Your task to perform on an android device: set the stopwatch Image 0: 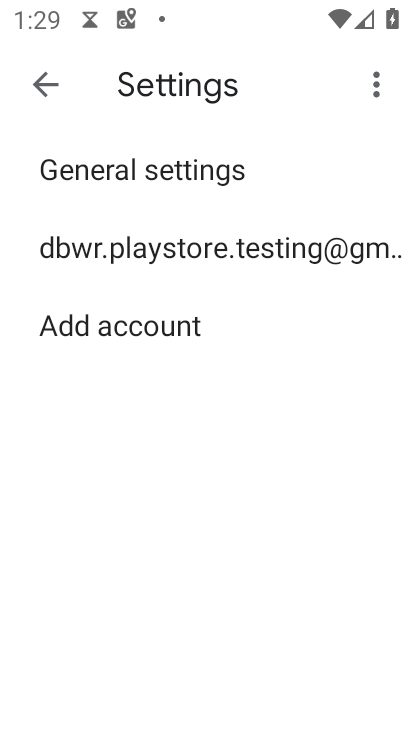
Step 0: press home button
Your task to perform on an android device: set the stopwatch Image 1: 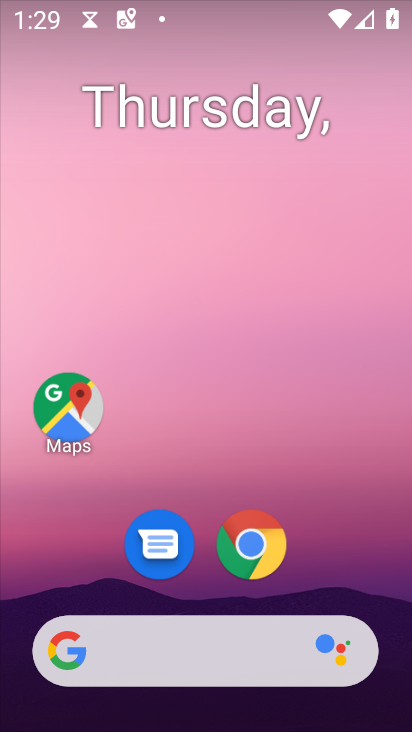
Step 1: drag from (191, 707) to (195, 158)
Your task to perform on an android device: set the stopwatch Image 2: 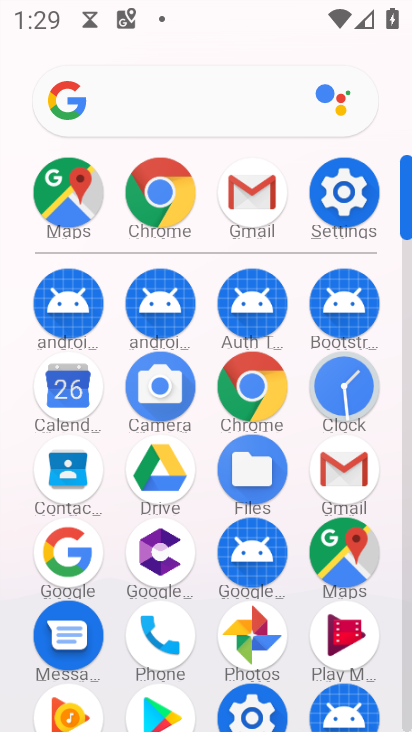
Step 2: click (354, 382)
Your task to perform on an android device: set the stopwatch Image 3: 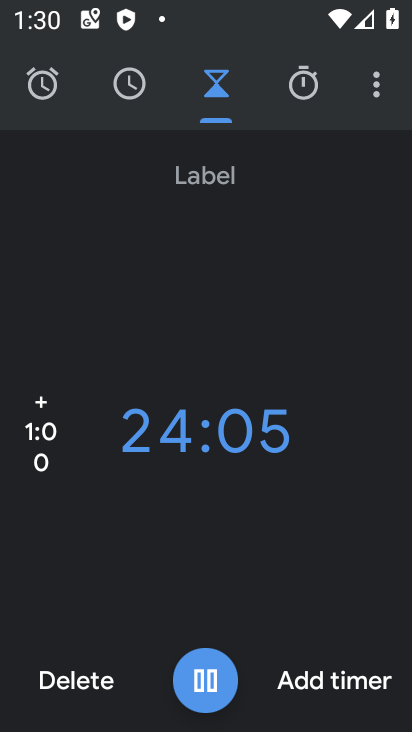
Step 3: click (304, 82)
Your task to perform on an android device: set the stopwatch Image 4: 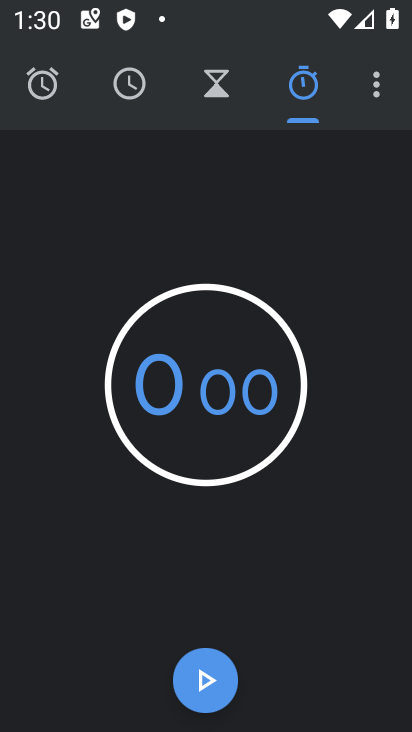
Step 4: click (220, 382)
Your task to perform on an android device: set the stopwatch Image 5: 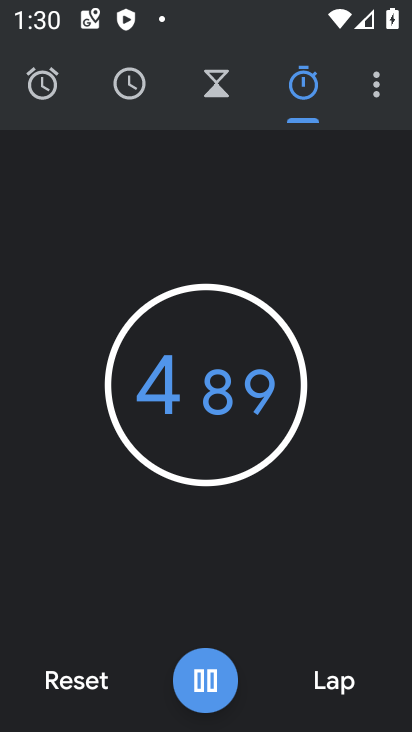
Step 5: type "77"
Your task to perform on an android device: set the stopwatch Image 6: 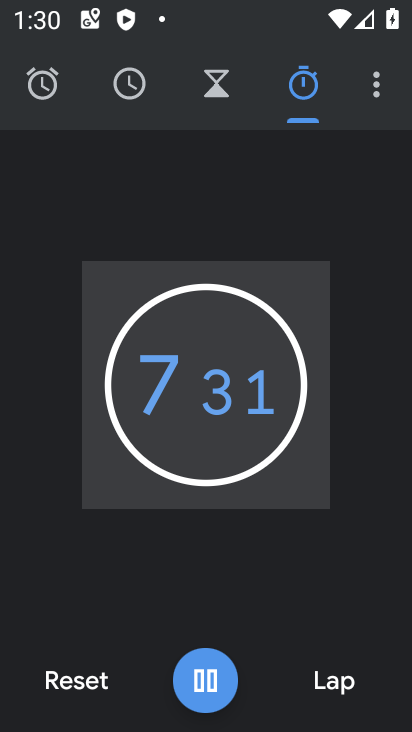
Step 6: task complete